Your task to perform on an android device: Open display settings Image 0: 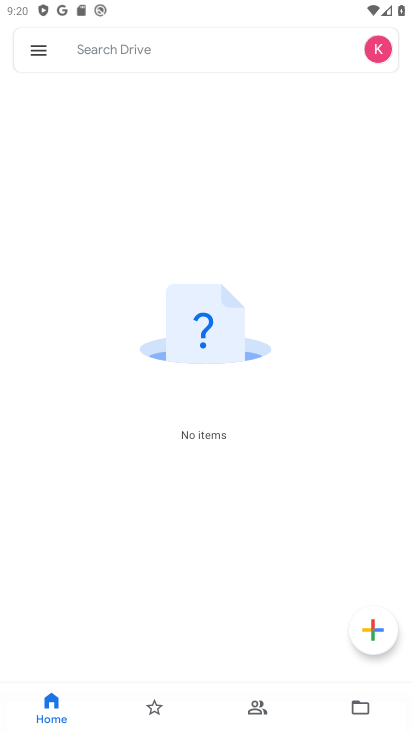
Step 0: press home button
Your task to perform on an android device: Open display settings Image 1: 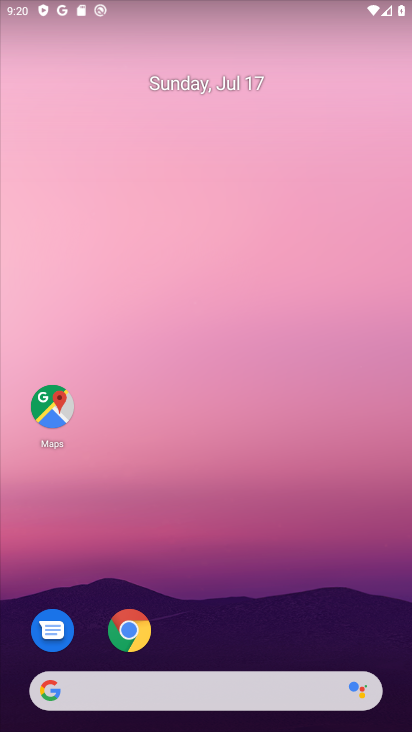
Step 1: drag from (213, 492) to (225, 24)
Your task to perform on an android device: Open display settings Image 2: 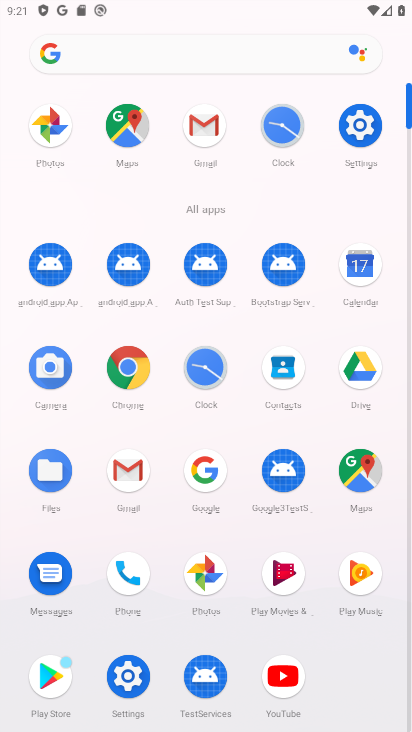
Step 2: click (358, 118)
Your task to perform on an android device: Open display settings Image 3: 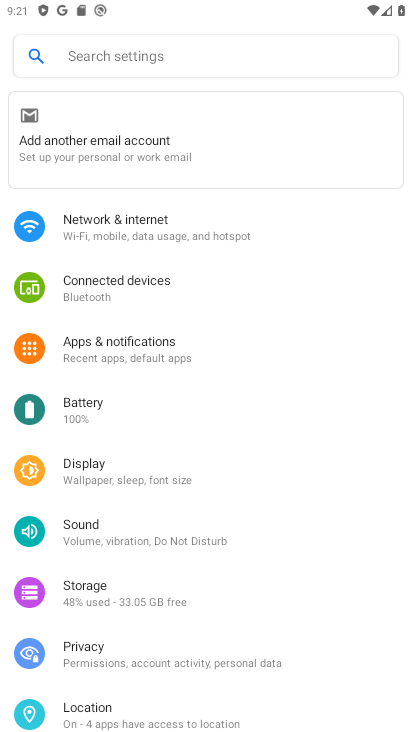
Step 3: click (83, 461)
Your task to perform on an android device: Open display settings Image 4: 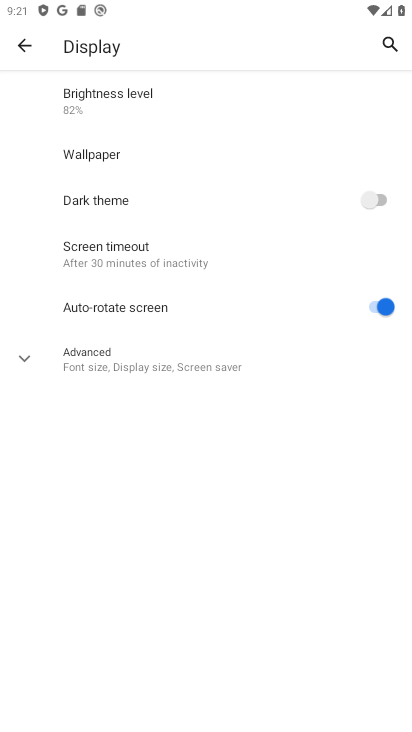
Step 4: click (34, 360)
Your task to perform on an android device: Open display settings Image 5: 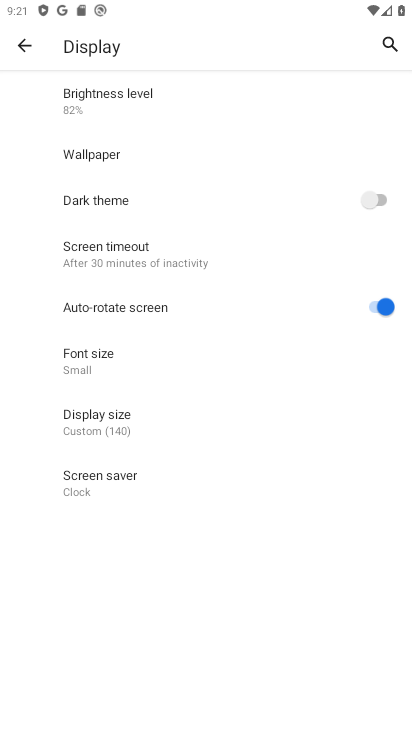
Step 5: task complete